Your task to perform on an android device: set the timer Image 0: 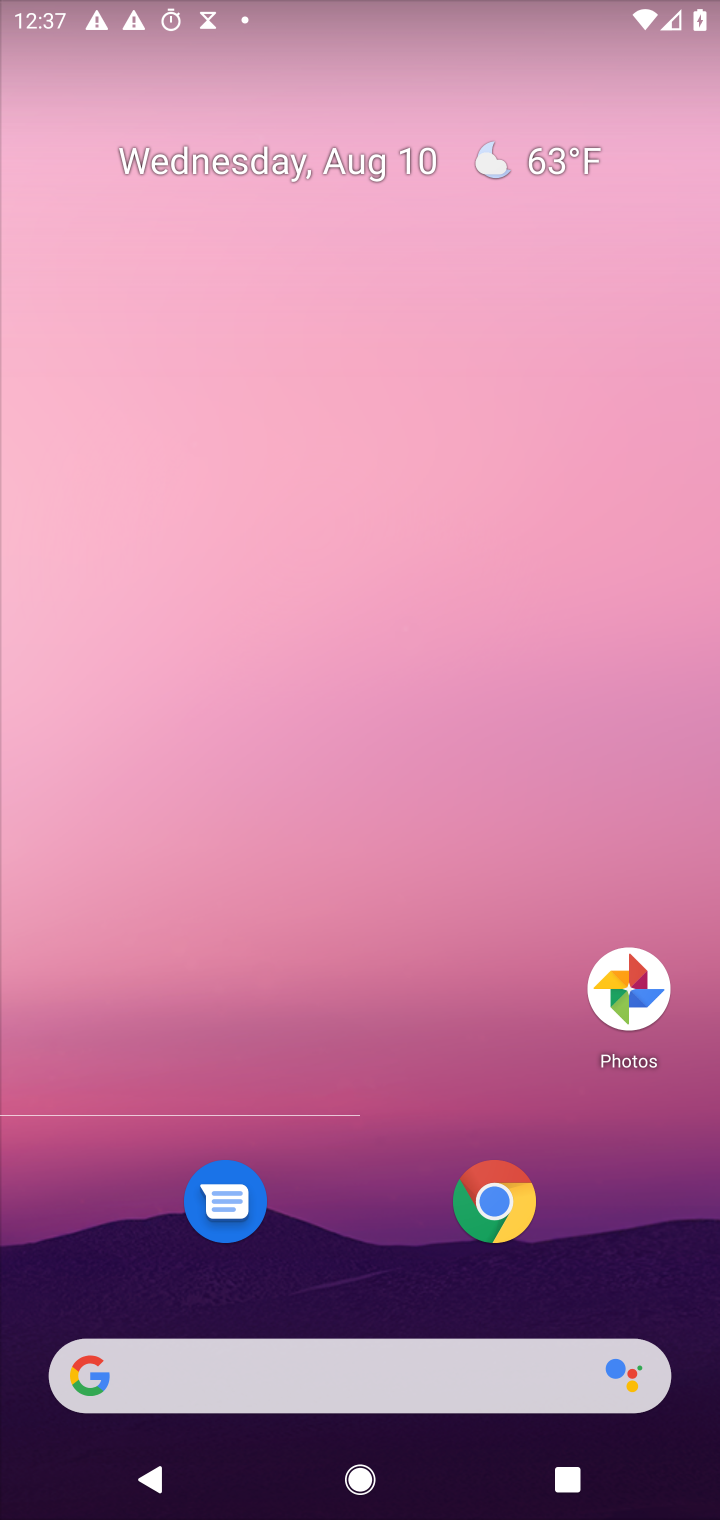
Step 0: drag from (464, 950) to (711, 1152)
Your task to perform on an android device: set the timer Image 1: 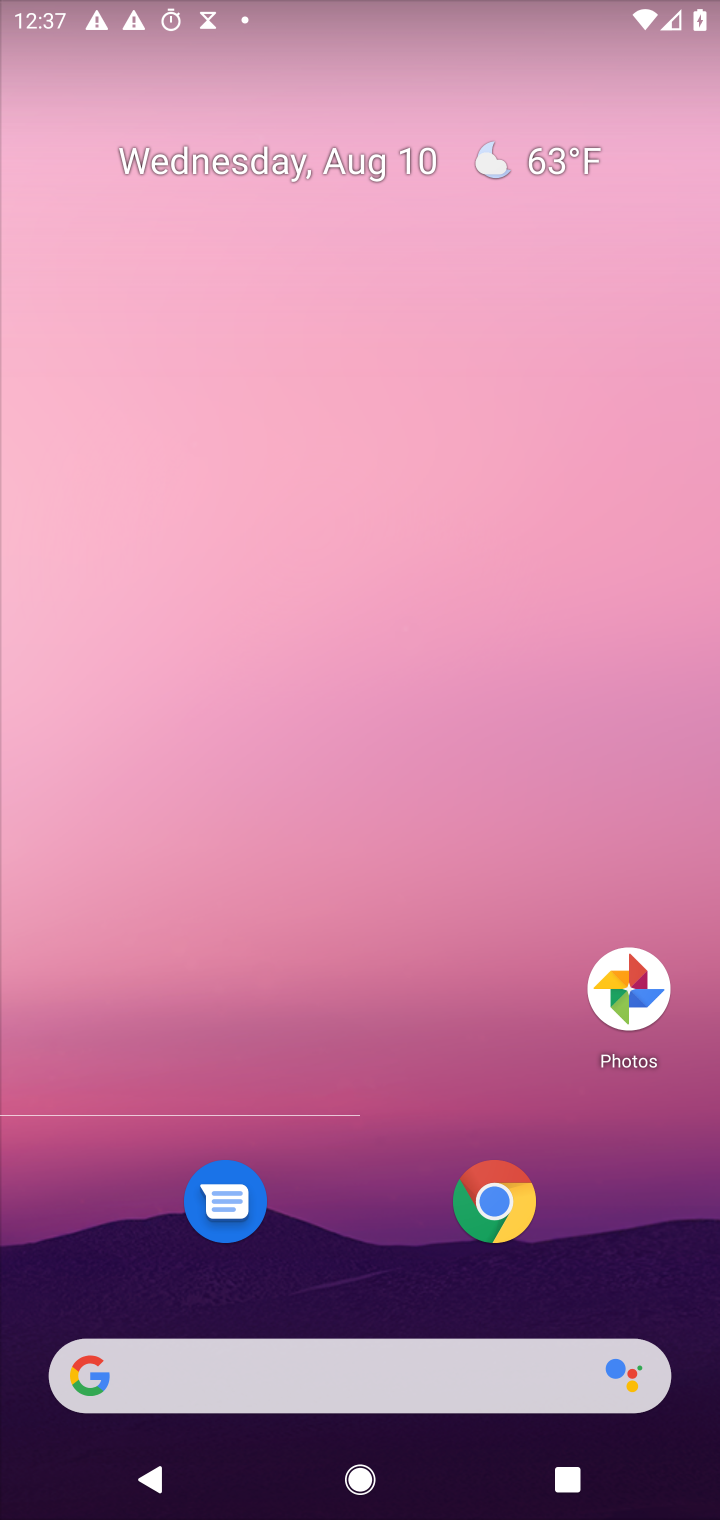
Step 1: drag from (335, 923) to (281, 97)
Your task to perform on an android device: set the timer Image 2: 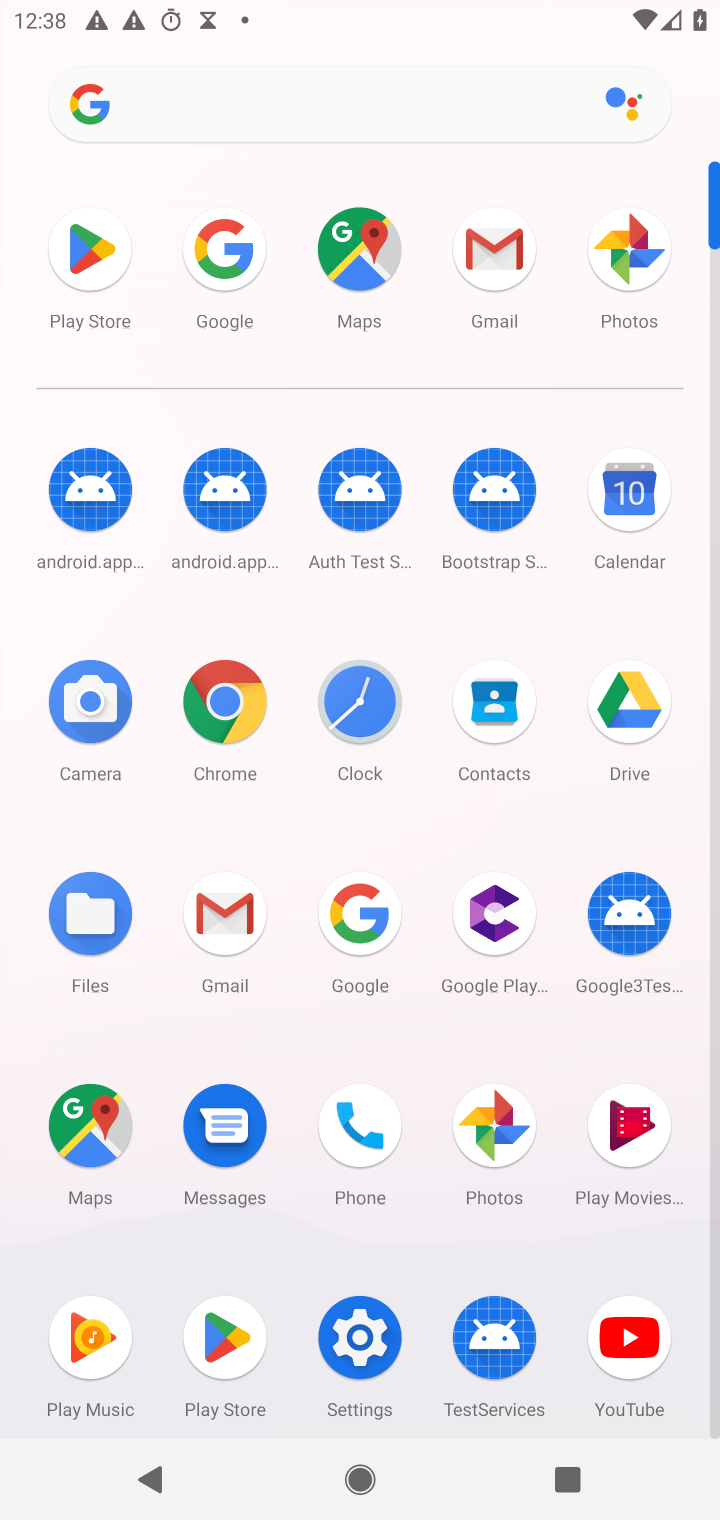
Step 2: click (365, 687)
Your task to perform on an android device: set the timer Image 3: 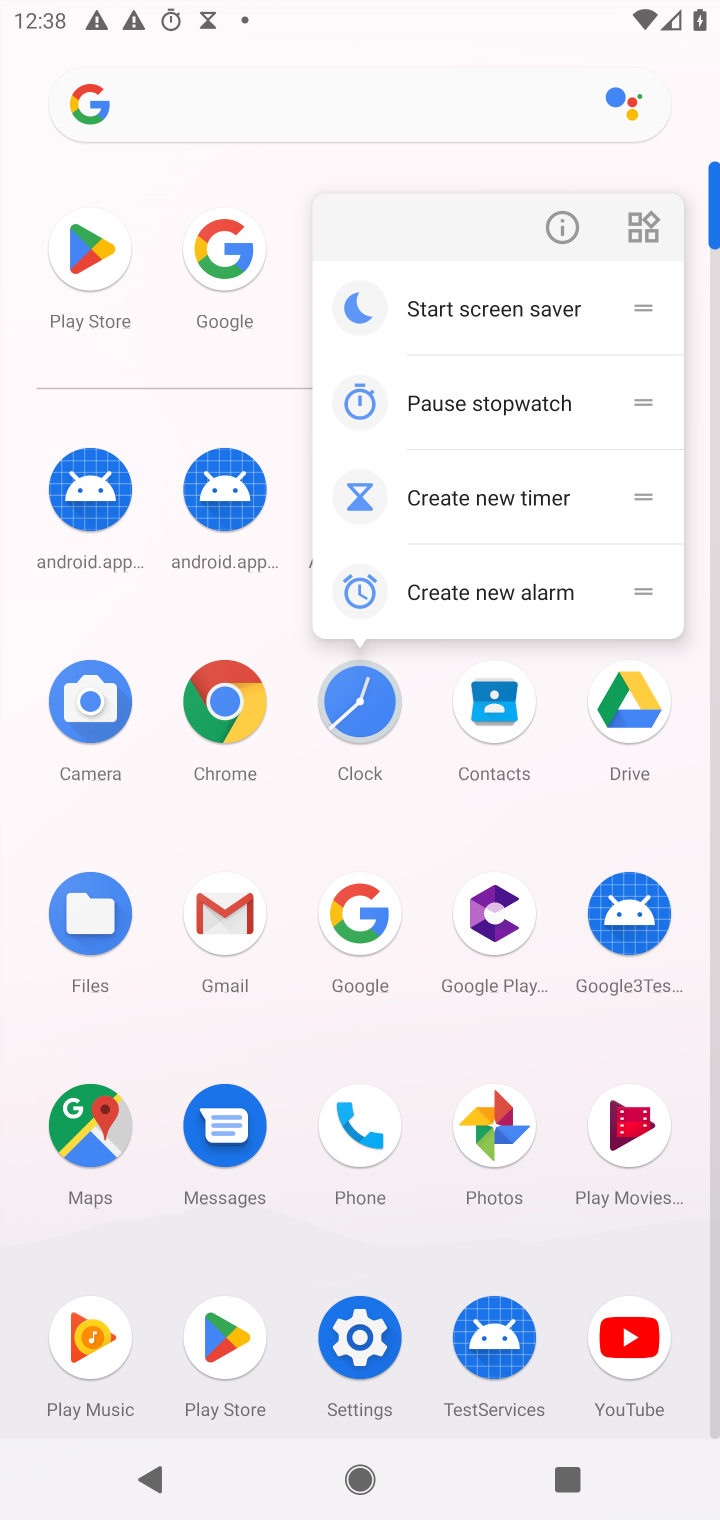
Step 3: click (368, 719)
Your task to perform on an android device: set the timer Image 4: 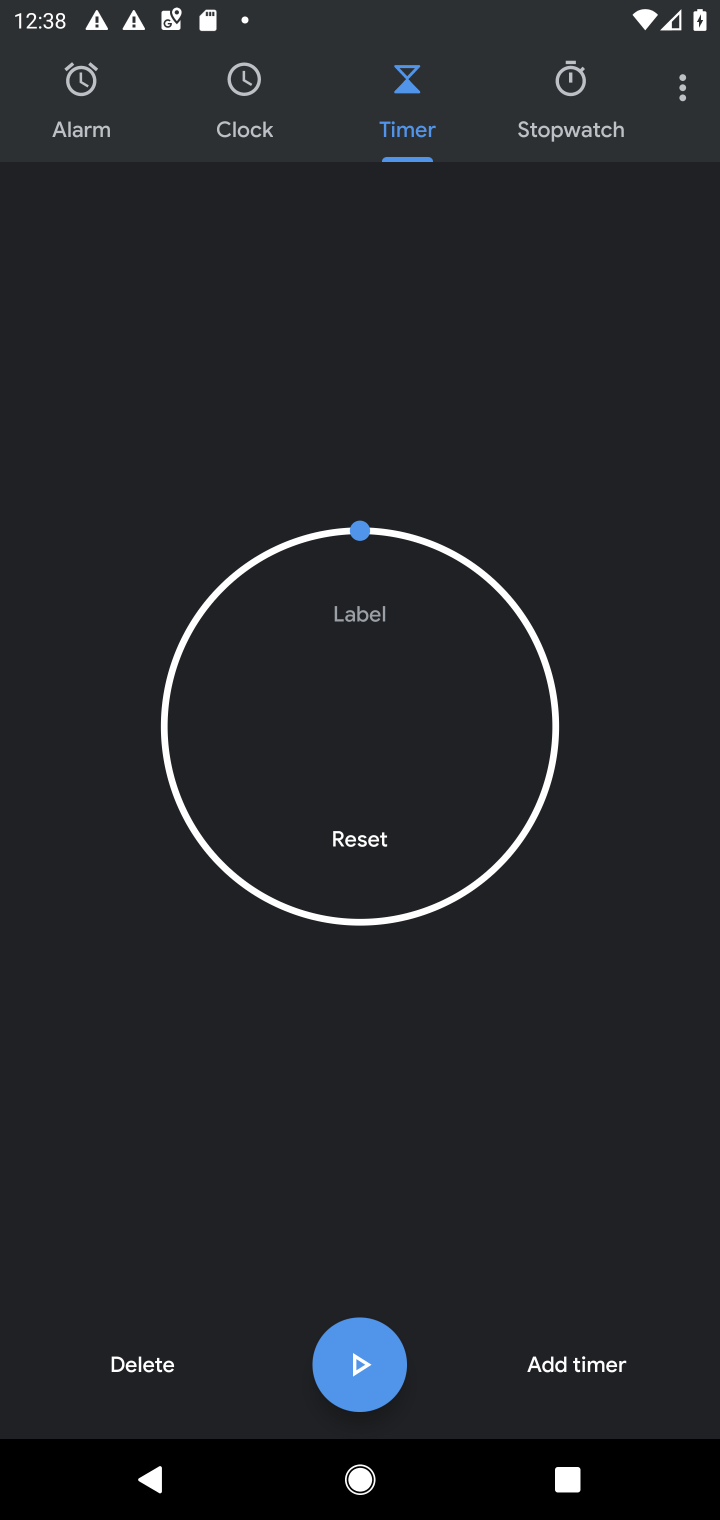
Step 4: click (346, 1375)
Your task to perform on an android device: set the timer Image 5: 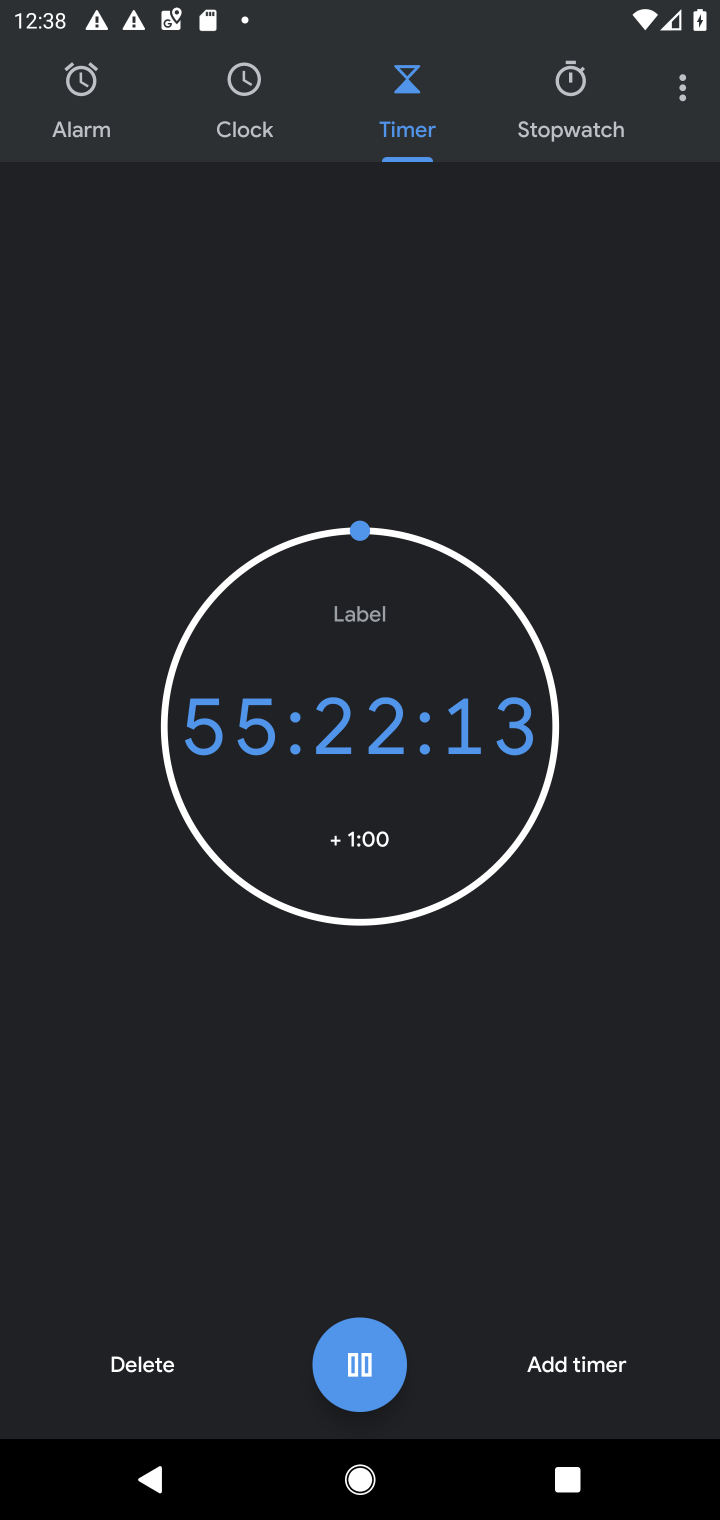
Step 5: click (346, 1375)
Your task to perform on an android device: set the timer Image 6: 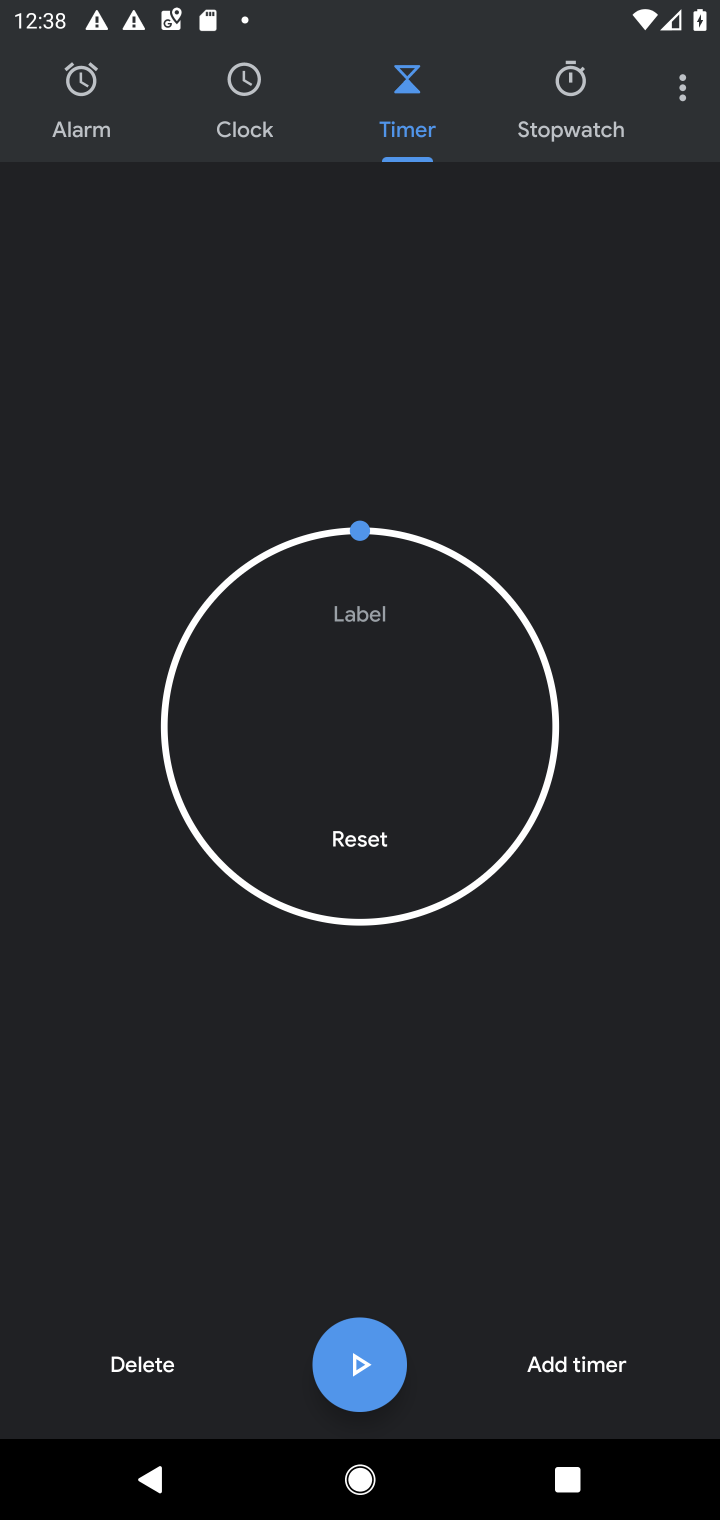
Step 6: task complete